Your task to perform on an android device: Search for "alienware area 51" on ebay, select the first entry, add it to the cart, then select checkout. Image 0: 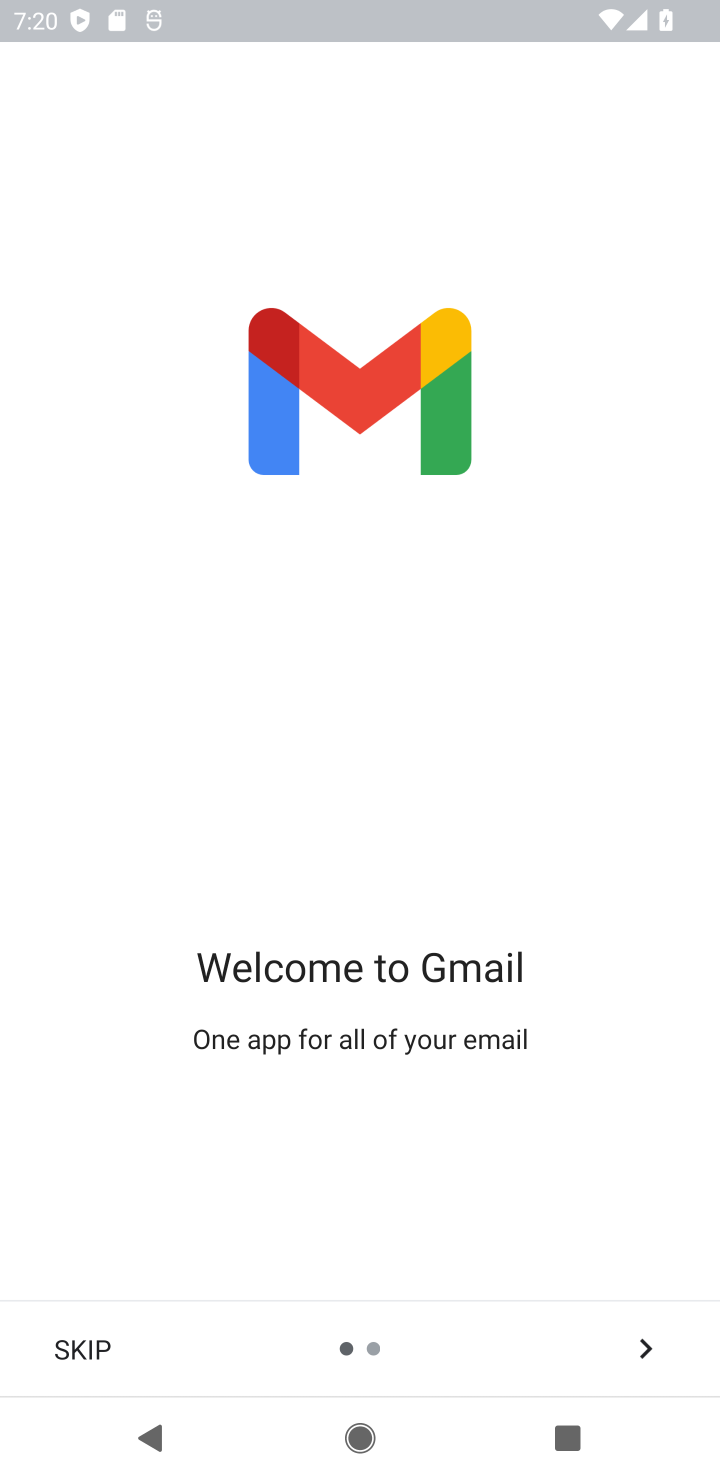
Step 0: press home button
Your task to perform on an android device: Search for "alienware area 51" on ebay, select the first entry, add it to the cart, then select checkout. Image 1: 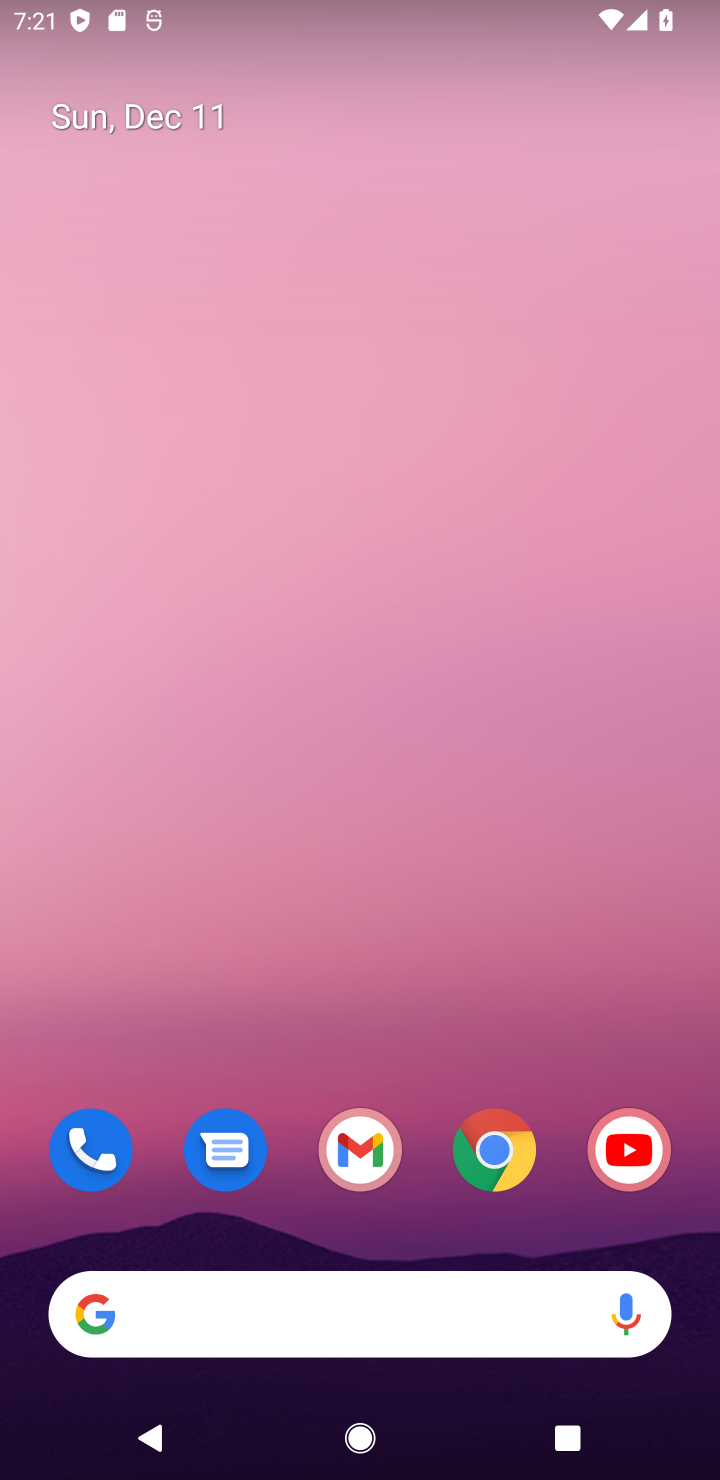
Step 1: click (494, 1147)
Your task to perform on an android device: Search for "alienware area 51" on ebay, select the first entry, add it to the cart, then select checkout. Image 2: 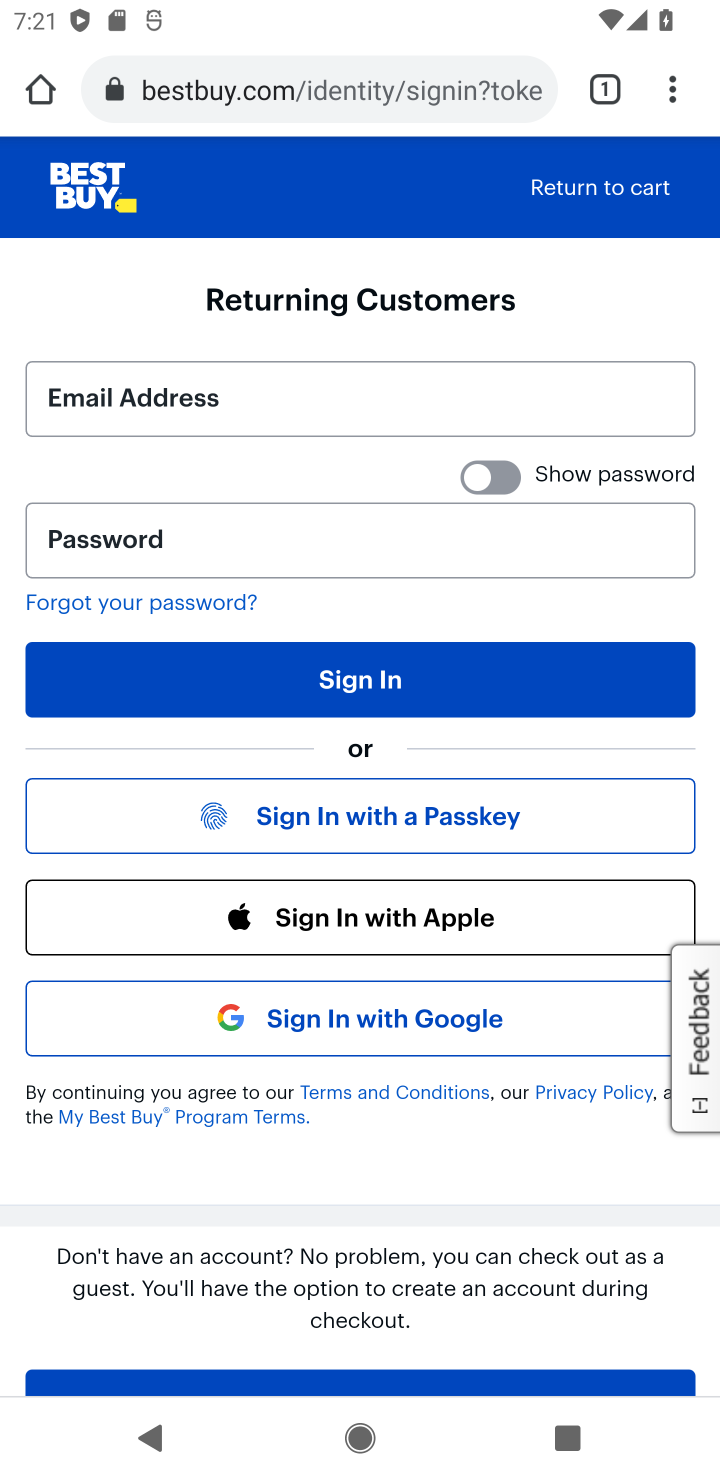
Step 2: click (374, 88)
Your task to perform on an android device: Search for "alienware area 51" on ebay, select the first entry, add it to the cart, then select checkout. Image 3: 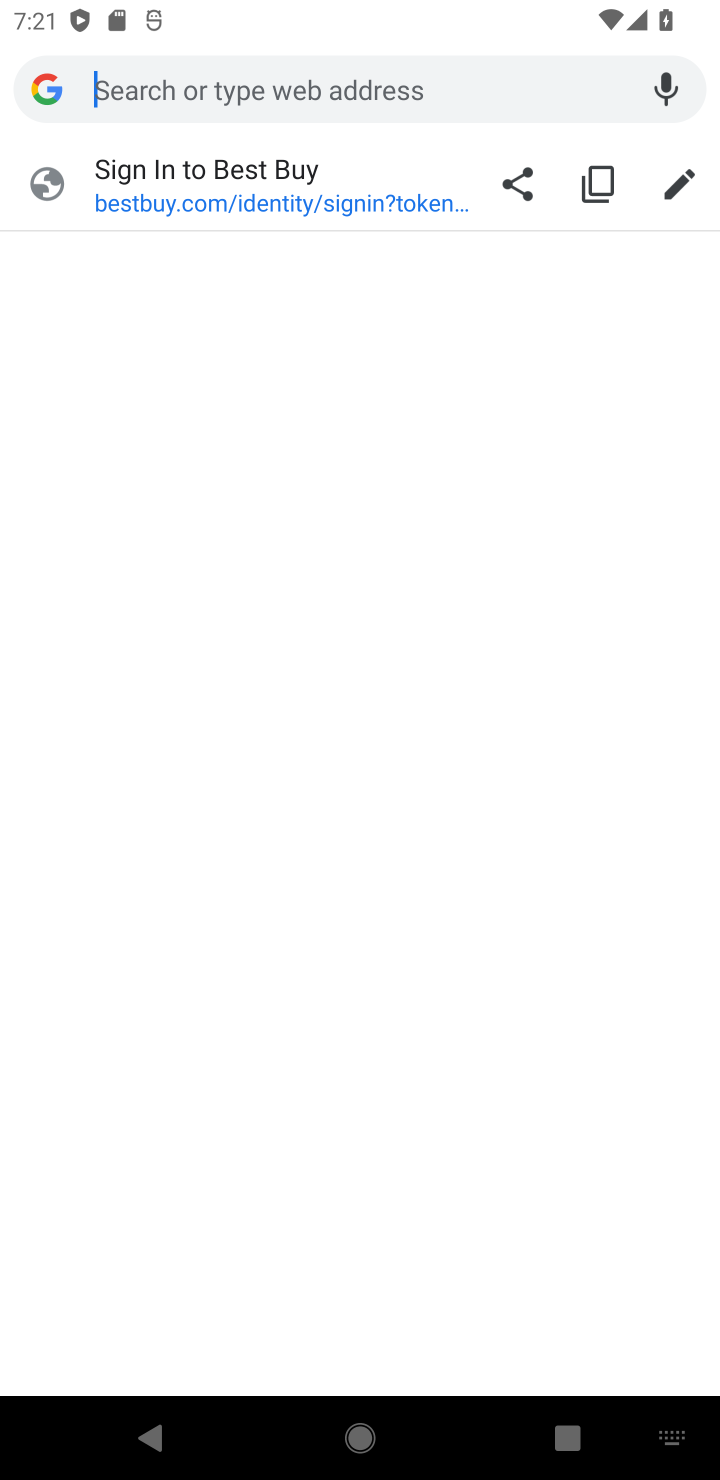
Step 3: type "ebay"
Your task to perform on an android device: Search for "alienware area 51" on ebay, select the first entry, add it to the cart, then select checkout. Image 4: 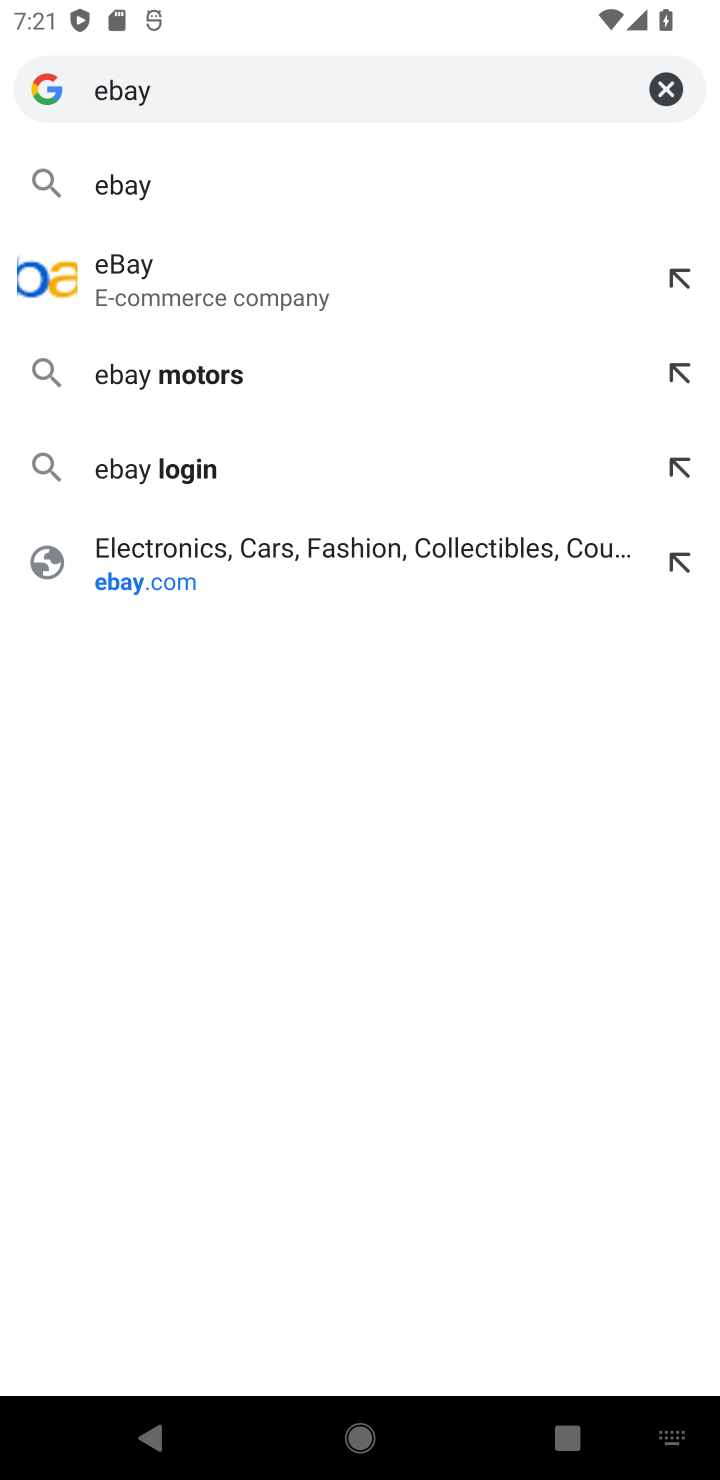
Step 4: click (99, 188)
Your task to perform on an android device: Search for "alienware area 51" on ebay, select the first entry, add it to the cart, then select checkout. Image 5: 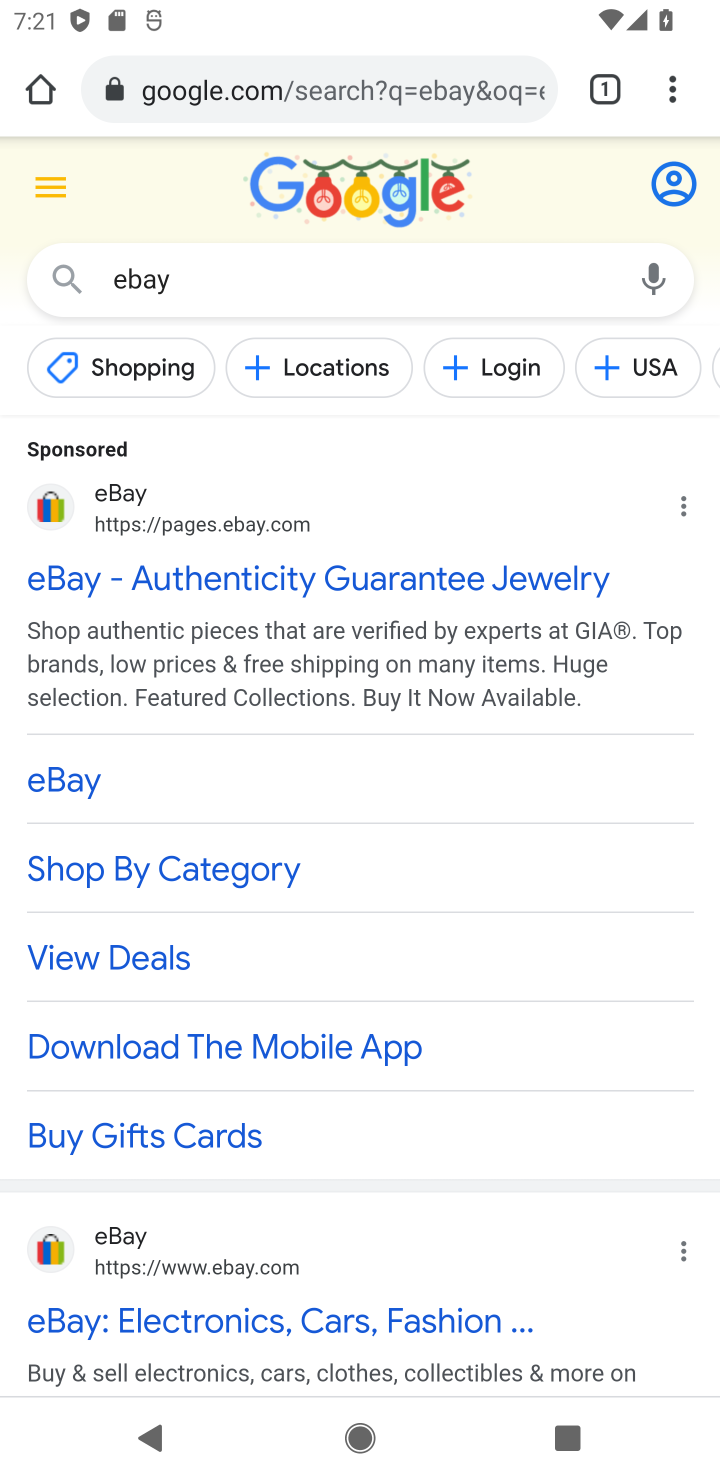
Step 5: click (214, 1270)
Your task to perform on an android device: Search for "alienware area 51" on ebay, select the first entry, add it to the cart, then select checkout. Image 6: 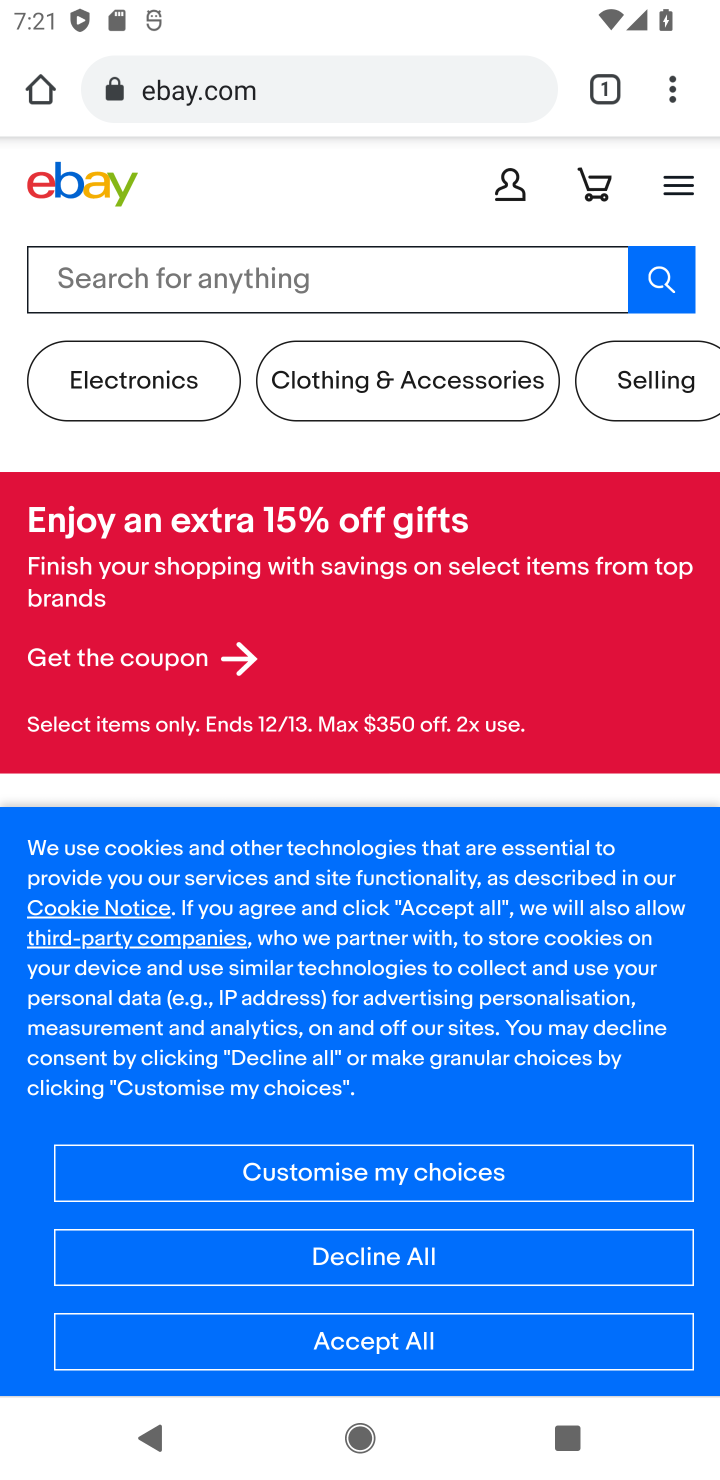
Step 6: click (451, 284)
Your task to perform on an android device: Search for "alienware area 51" on ebay, select the first entry, add it to the cart, then select checkout. Image 7: 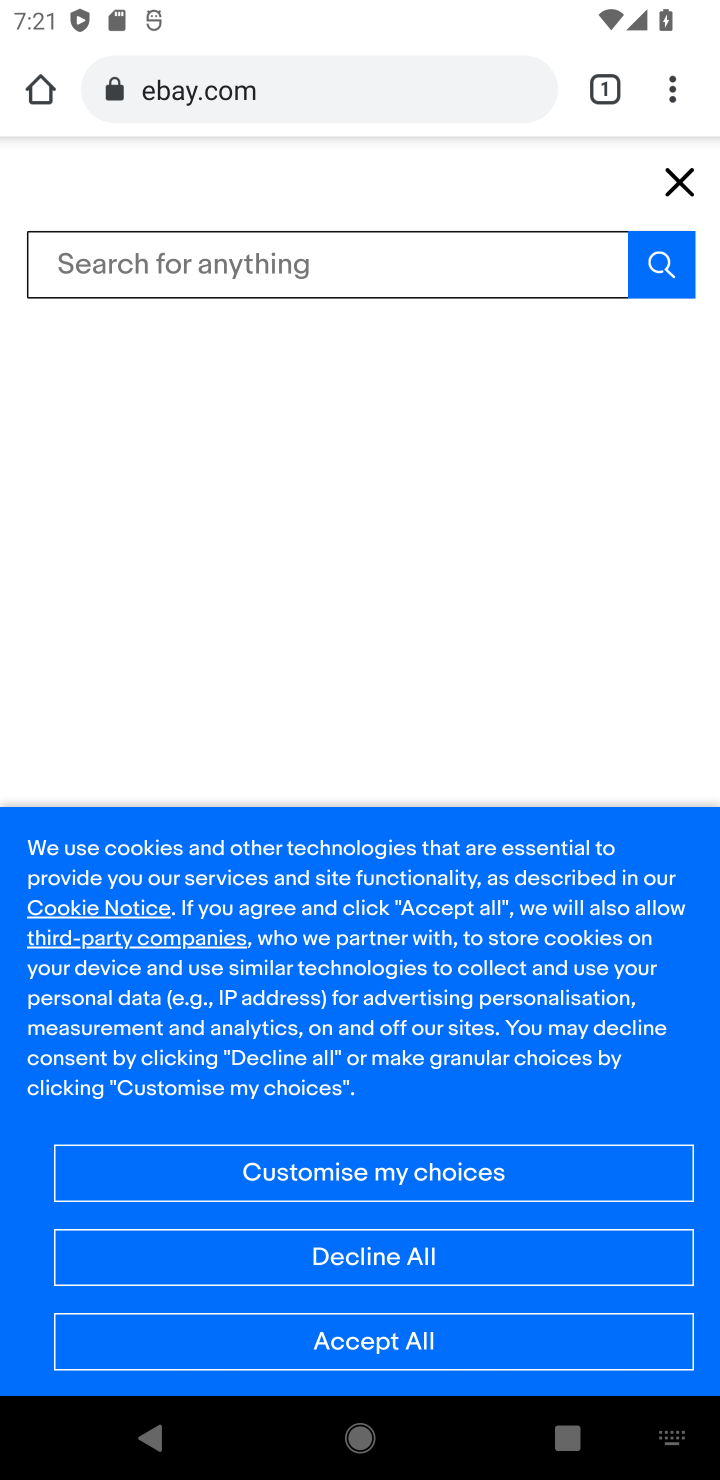
Step 7: type "alienware area 51"
Your task to perform on an android device: Search for "alienware area 51" on ebay, select the first entry, add it to the cart, then select checkout. Image 8: 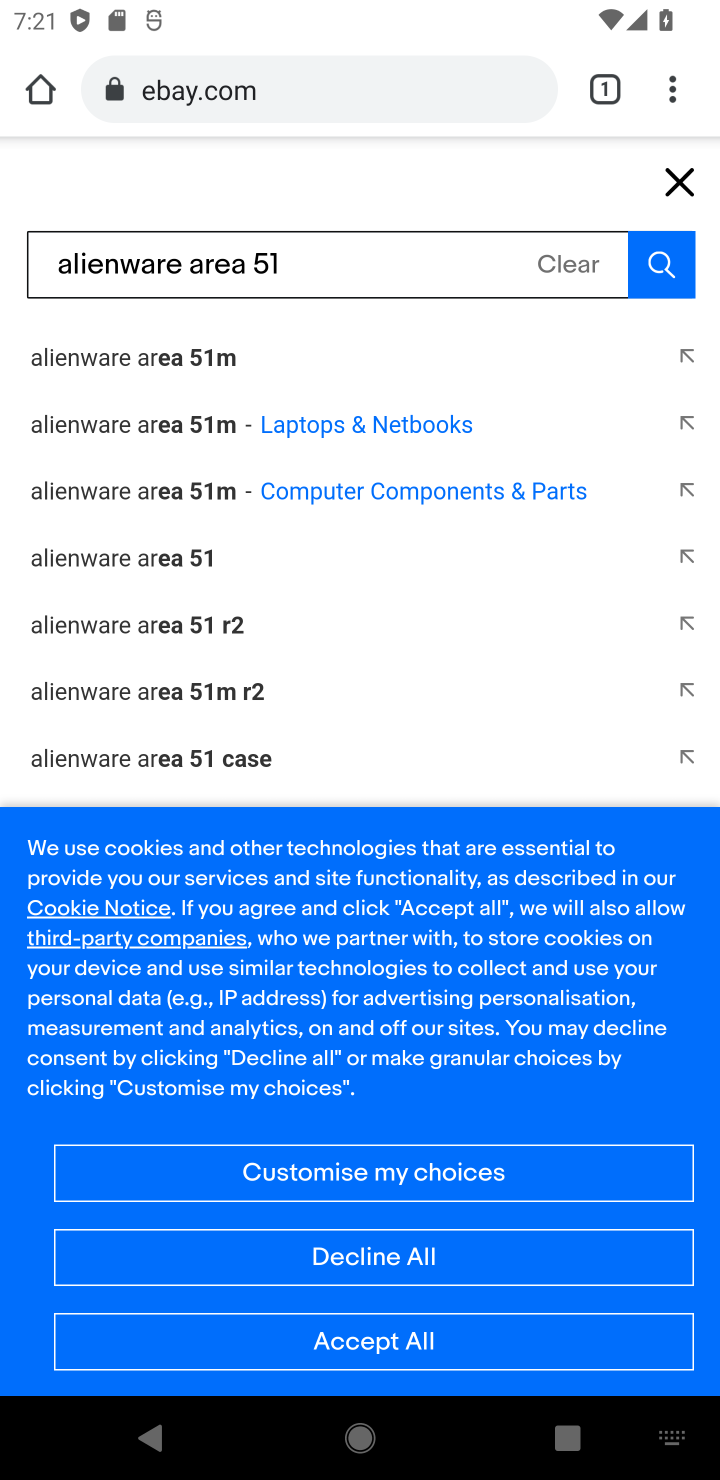
Step 8: click (670, 262)
Your task to perform on an android device: Search for "alienware area 51" on ebay, select the first entry, add it to the cart, then select checkout. Image 9: 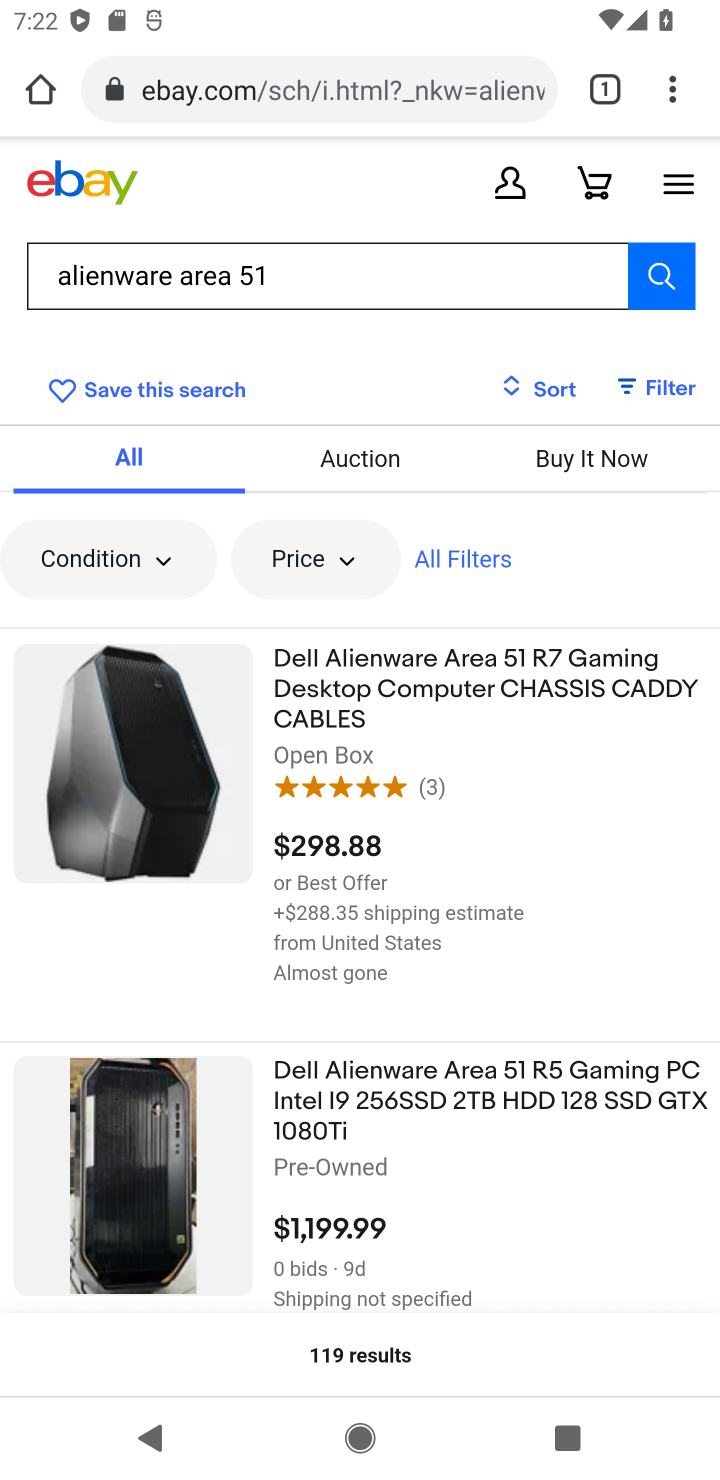
Step 9: click (413, 681)
Your task to perform on an android device: Search for "alienware area 51" on ebay, select the first entry, add it to the cart, then select checkout. Image 10: 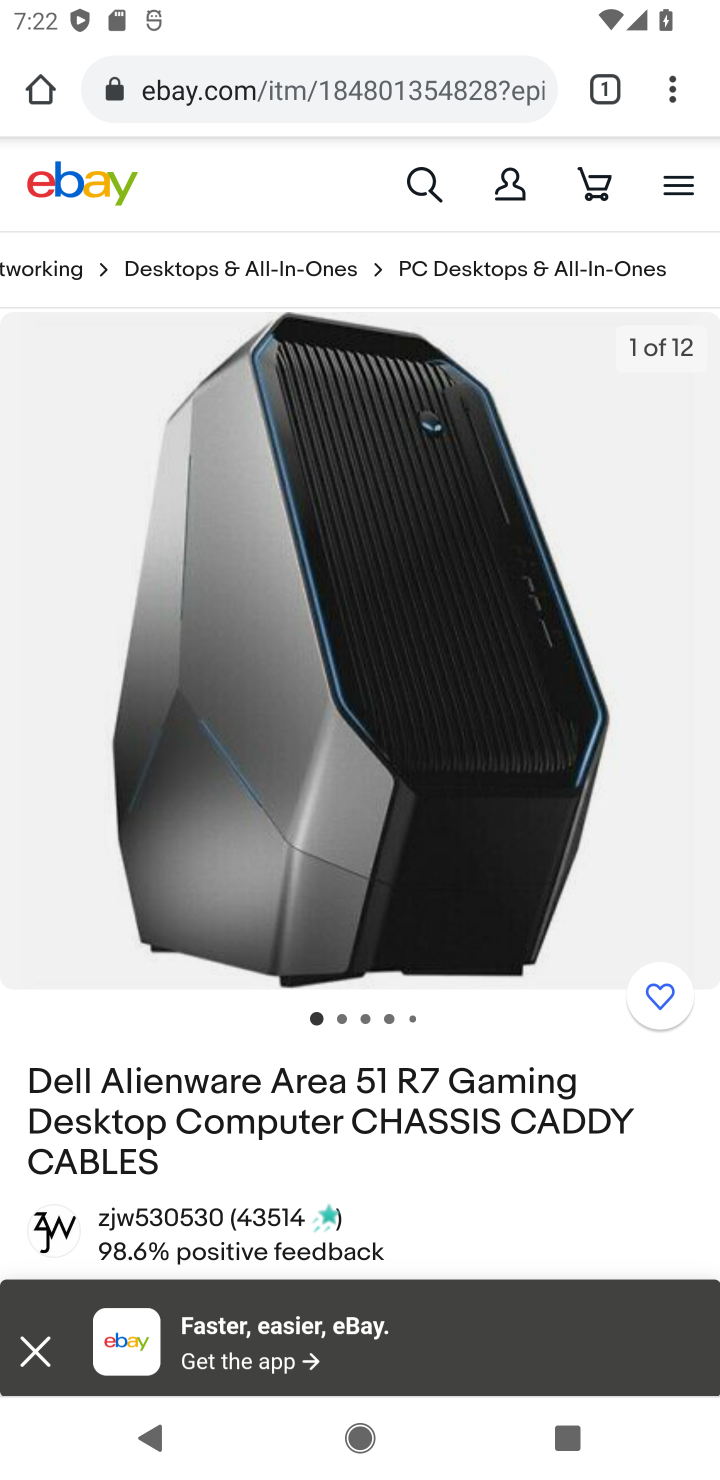
Step 10: drag from (456, 1224) to (516, 543)
Your task to perform on an android device: Search for "alienware area 51" on ebay, select the first entry, add it to the cart, then select checkout. Image 11: 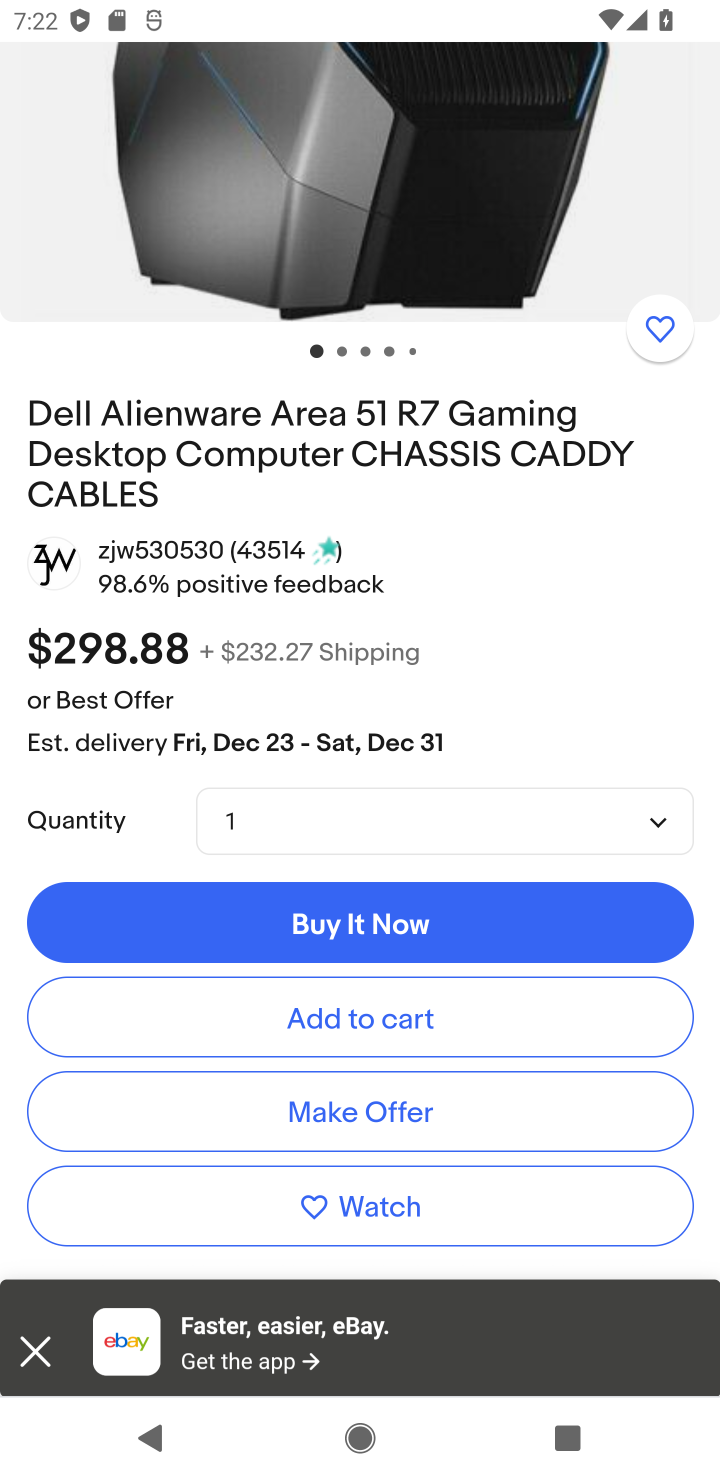
Step 11: click (386, 1015)
Your task to perform on an android device: Search for "alienware area 51" on ebay, select the first entry, add it to the cart, then select checkout. Image 12: 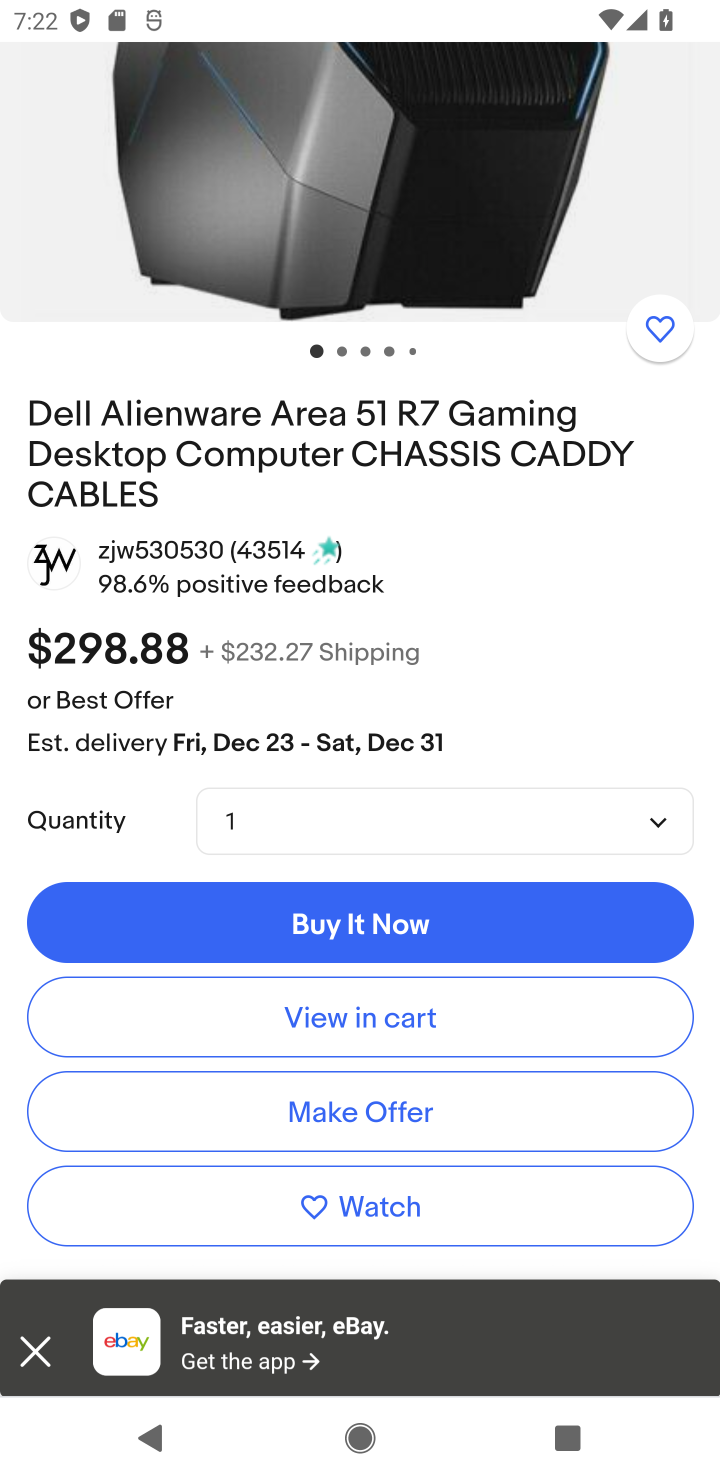
Step 12: click (386, 1015)
Your task to perform on an android device: Search for "alienware area 51" on ebay, select the first entry, add it to the cart, then select checkout. Image 13: 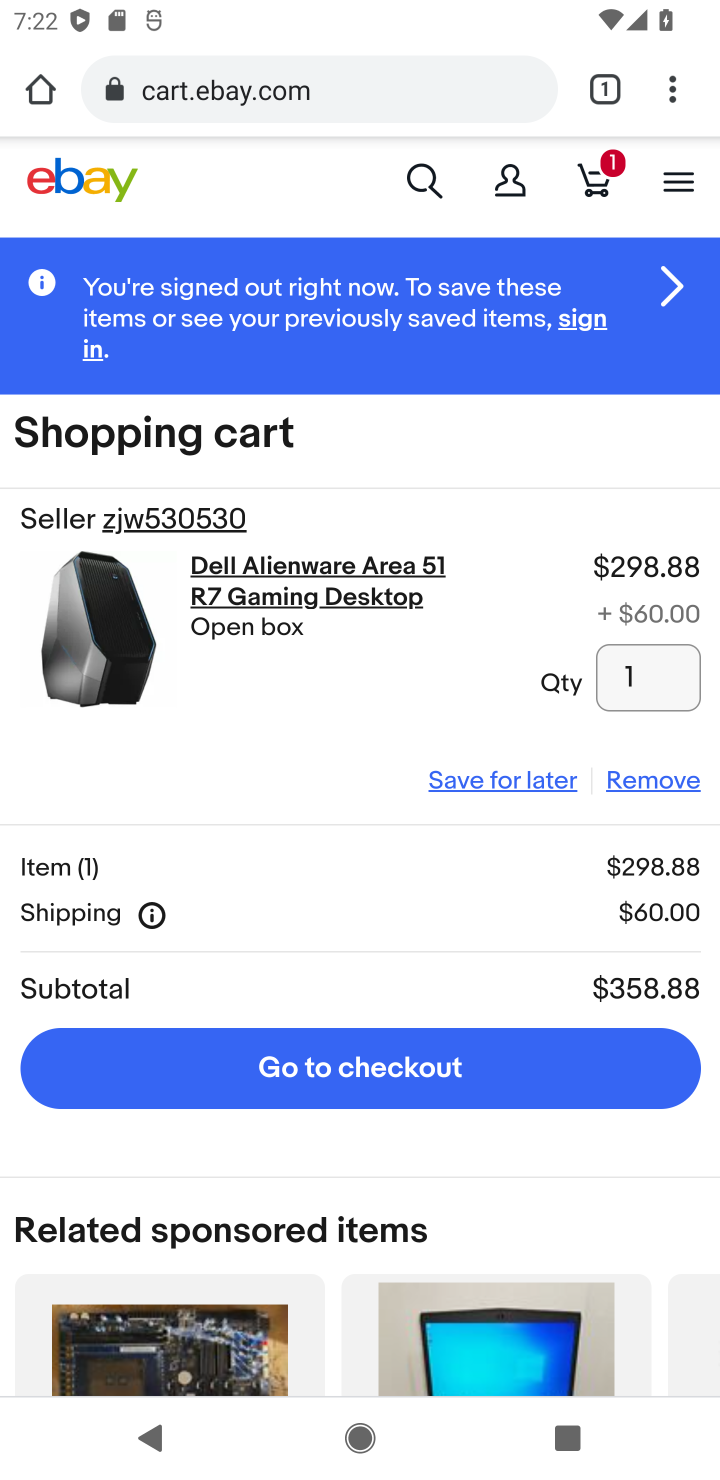
Step 13: click (411, 1076)
Your task to perform on an android device: Search for "alienware area 51" on ebay, select the first entry, add it to the cart, then select checkout. Image 14: 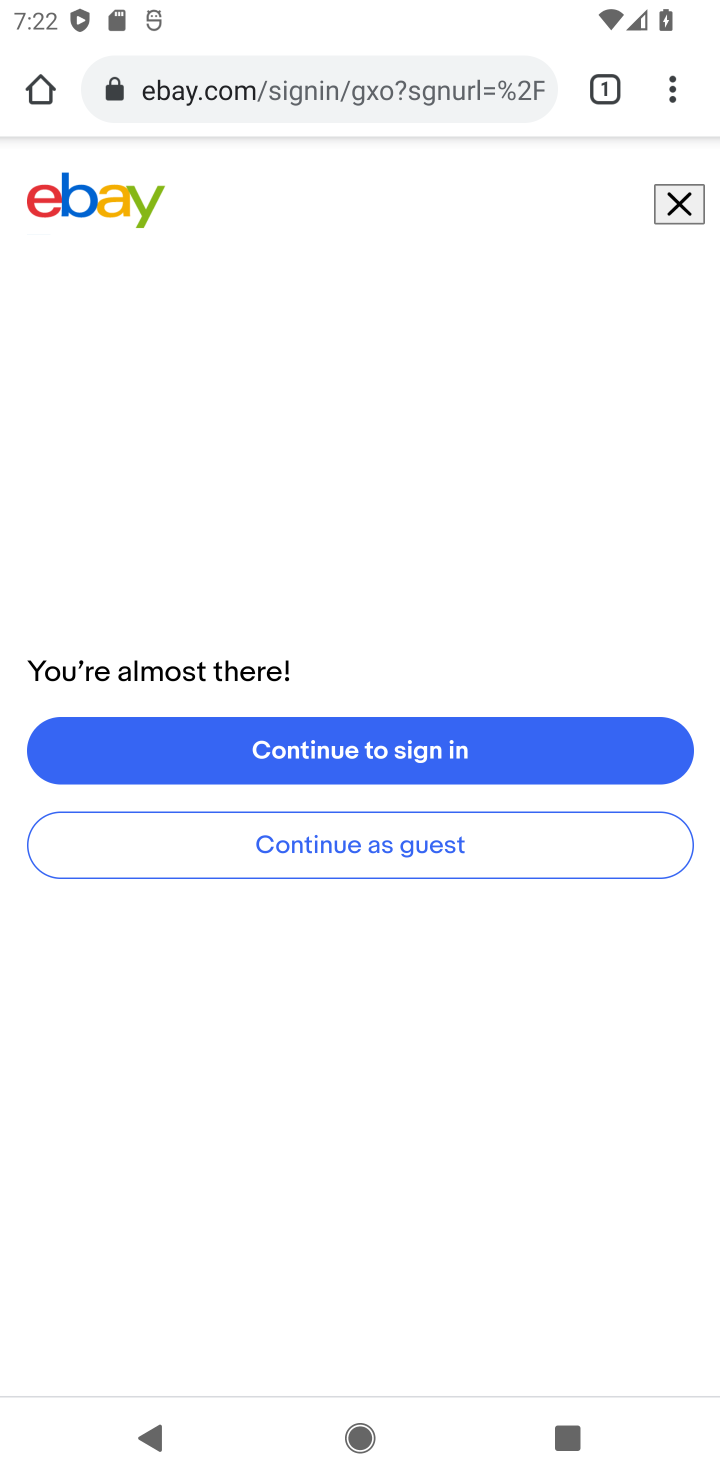
Step 14: task complete